Your task to perform on an android device: Search for pizza restaurants on Maps Image 0: 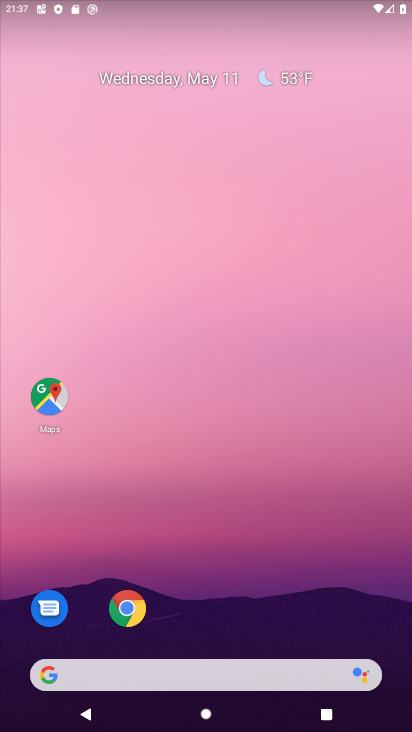
Step 0: click (50, 406)
Your task to perform on an android device: Search for pizza restaurants on Maps Image 1: 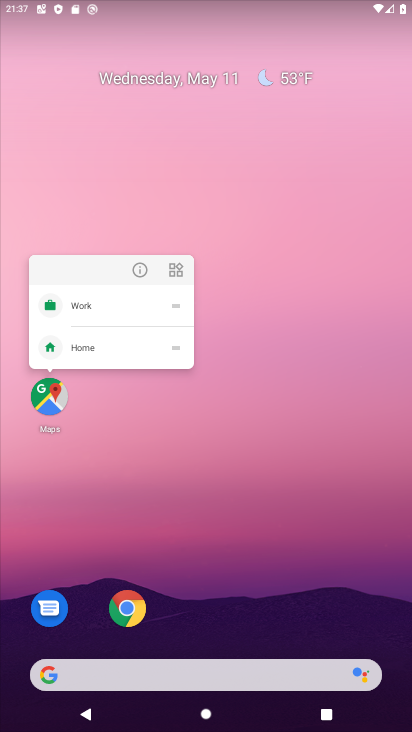
Step 1: click (52, 402)
Your task to perform on an android device: Search for pizza restaurants on Maps Image 2: 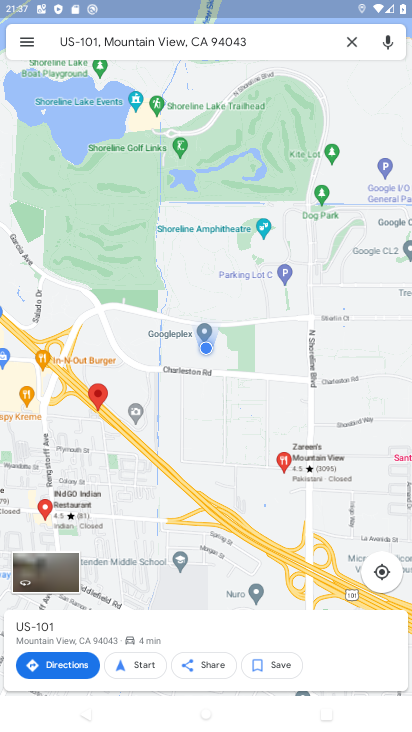
Step 2: click (355, 48)
Your task to perform on an android device: Search for pizza restaurants on Maps Image 3: 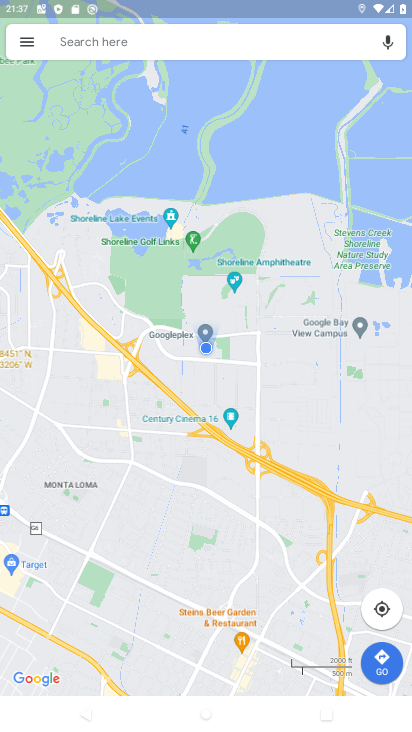
Step 3: click (309, 42)
Your task to perform on an android device: Search for pizza restaurants on Maps Image 4: 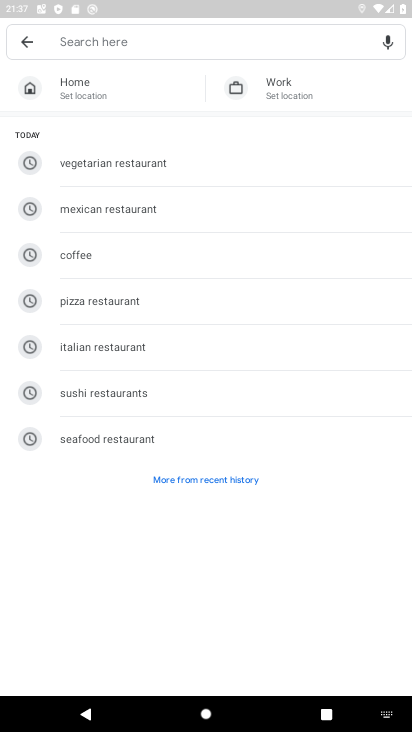
Step 4: click (121, 301)
Your task to perform on an android device: Search for pizza restaurants on Maps Image 5: 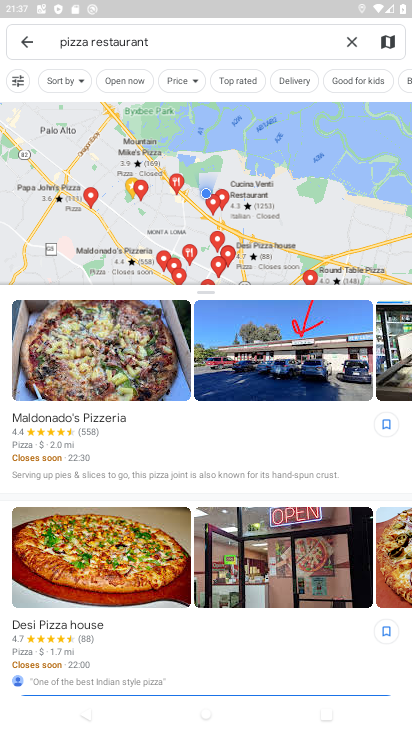
Step 5: task complete